Your task to perform on an android device: change the clock display to analog Image 0: 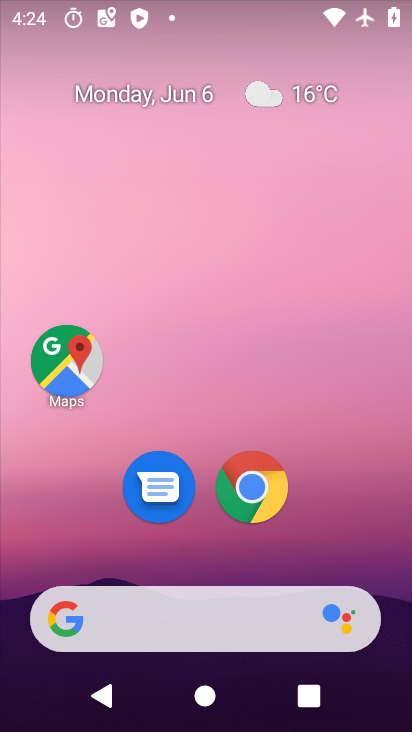
Step 0: drag from (348, 455) to (370, 152)
Your task to perform on an android device: change the clock display to analog Image 1: 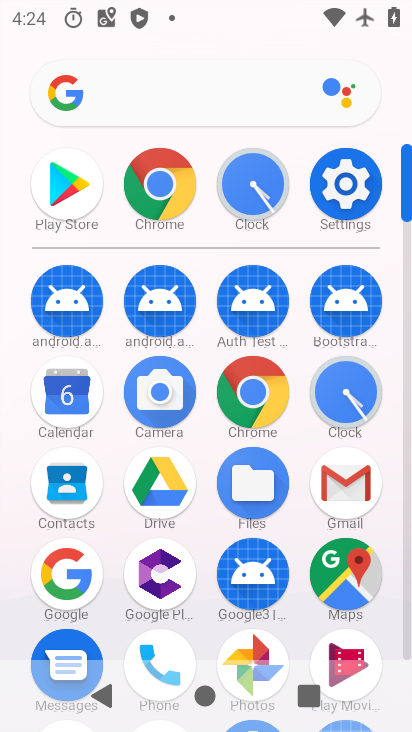
Step 1: click (254, 169)
Your task to perform on an android device: change the clock display to analog Image 2: 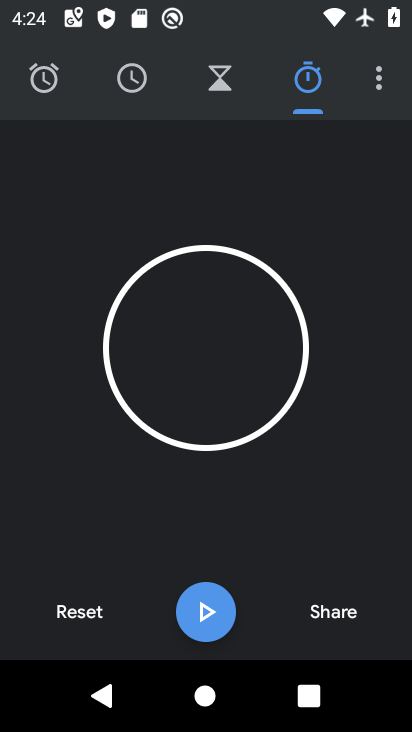
Step 2: drag from (380, 77) to (302, 147)
Your task to perform on an android device: change the clock display to analog Image 3: 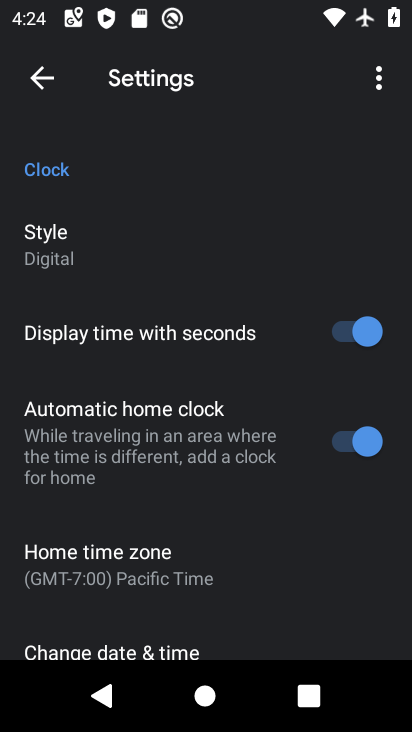
Step 3: click (60, 250)
Your task to perform on an android device: change the clock display to analog Image 4: 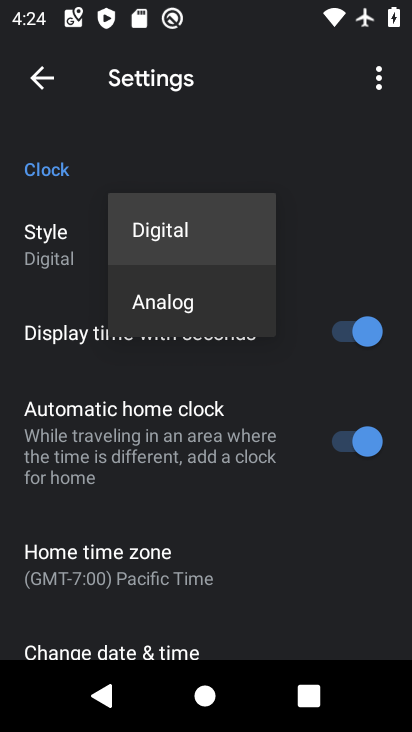
Step 4: click (179, 295)
Your task to perform on an android device: change the clock display to analog Image 5: 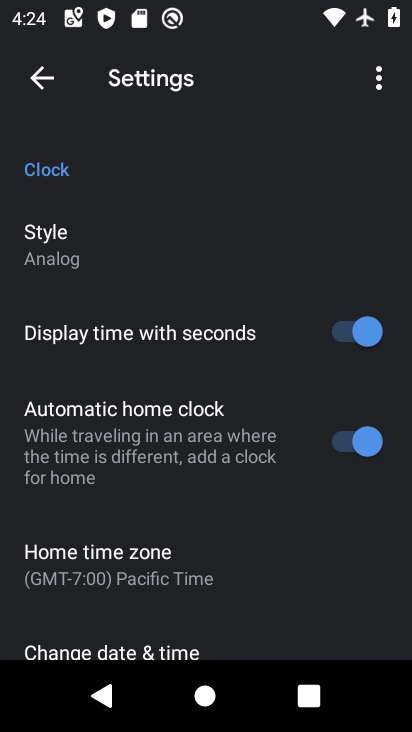
Step 5: task complete